Your task to perform on an android device: check battery use Image 0: 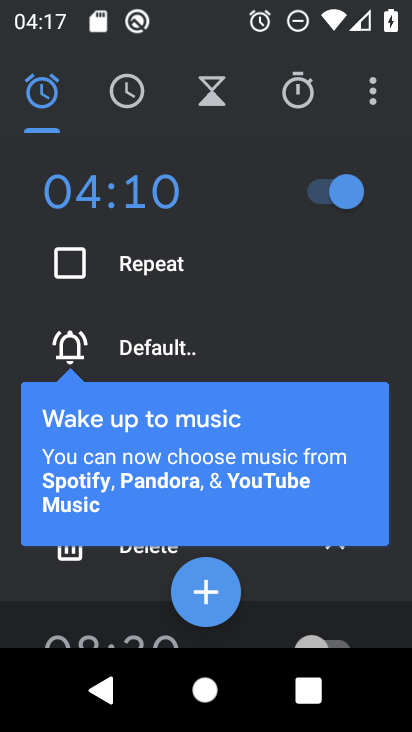
Step 0: press home button
Your task to perform on an android device: check battery use Image 1: 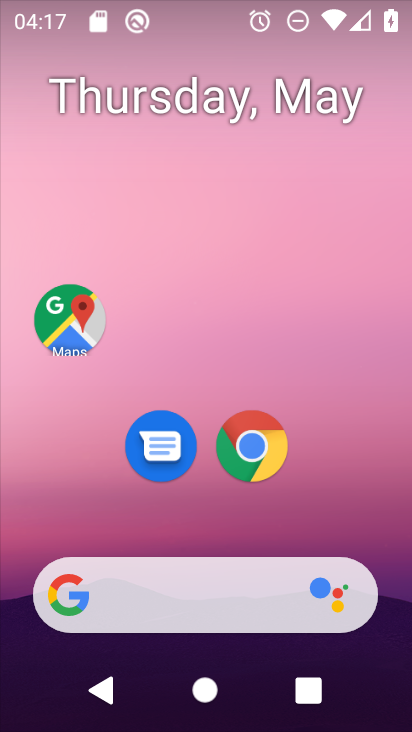
Step 1: drag from (340, 550) to (408, 37)
Your task to perform on an android device: check battery use Image 2: 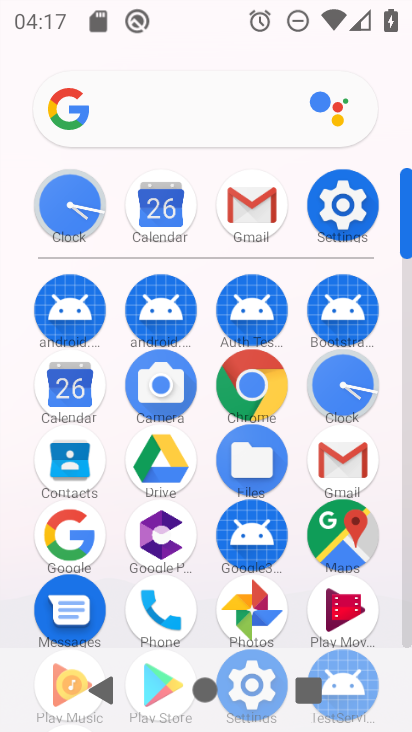
Step 2: click (352, 207)
Your task to perform on an android device: check battery use Image 3: 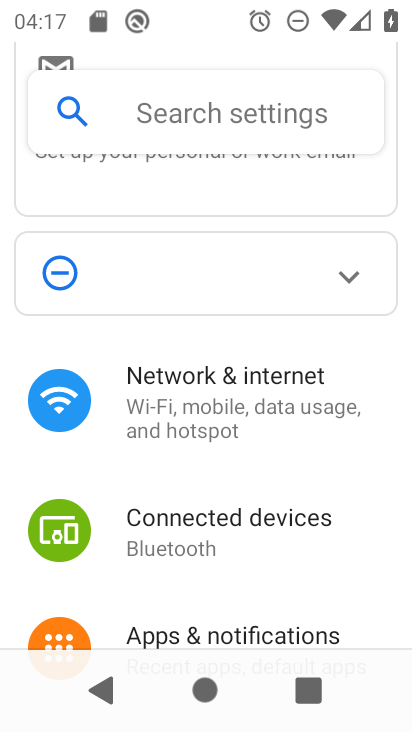
Step 3: drag from (286, 489) to (313, 12)
Your task to perform on an android device: check battery use Image 4: 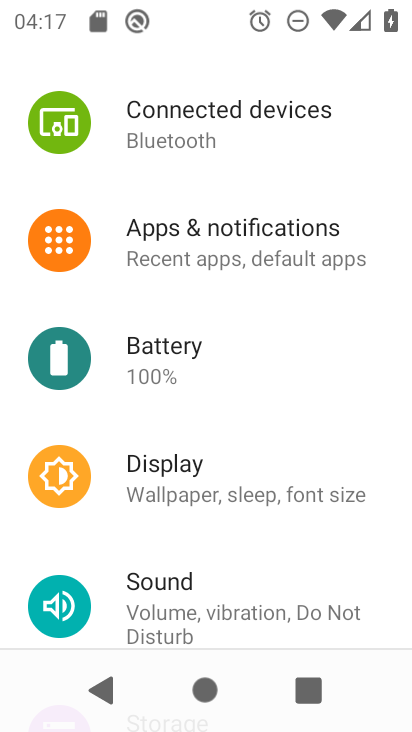
Step 4: click (152, 371)
Your task to perform on an android device: check battery use Image 5: 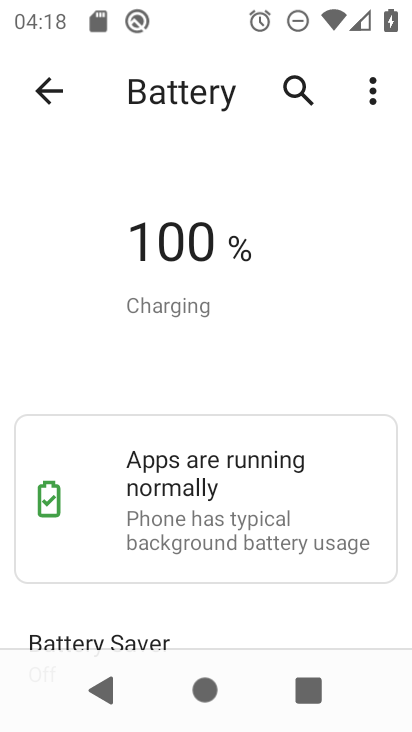
Step 5: click (379, 96)
Your task to perform on an android device: check battery use Image 6: 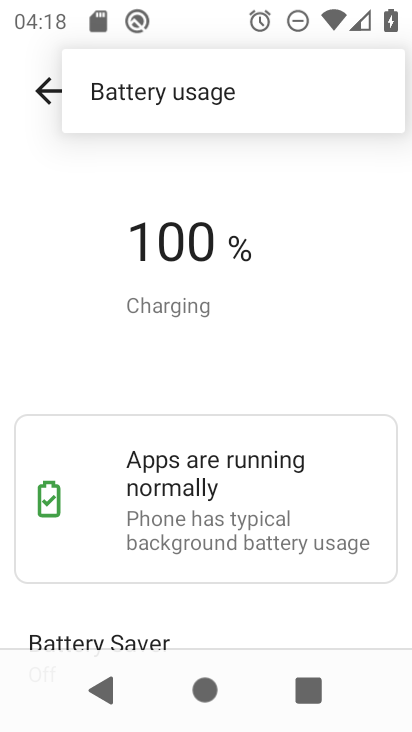
Step 6: click (204, 96)
Your task to perform on an android device: check battery use Image 7: 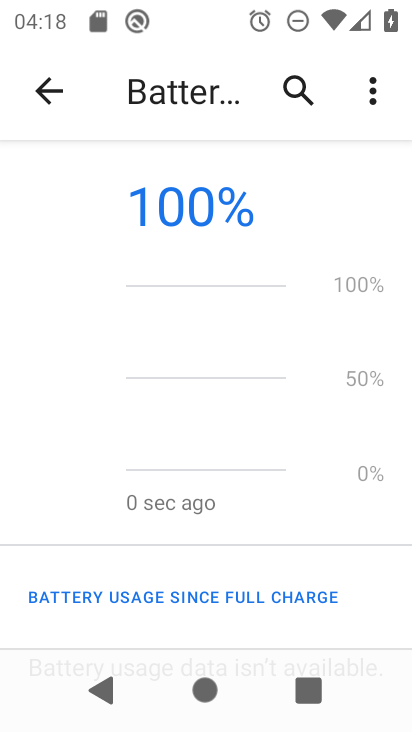
Step 7: task complete